Your task to perform on an android device: Go to Amazon Image 0: 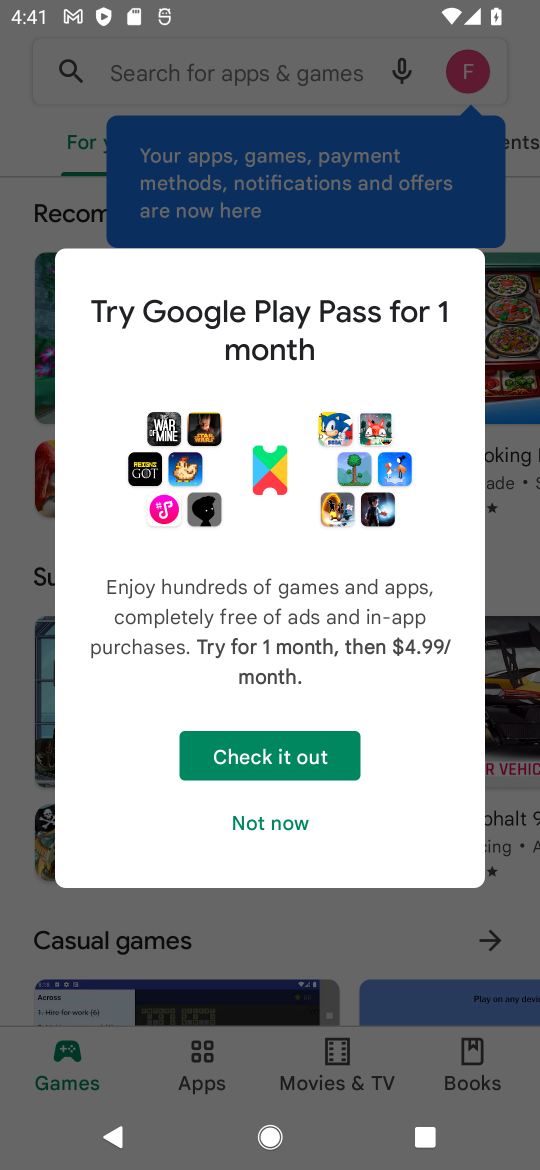
Step 0: press home button
Your task to perform on an android device: Go to Amazon Image 1: 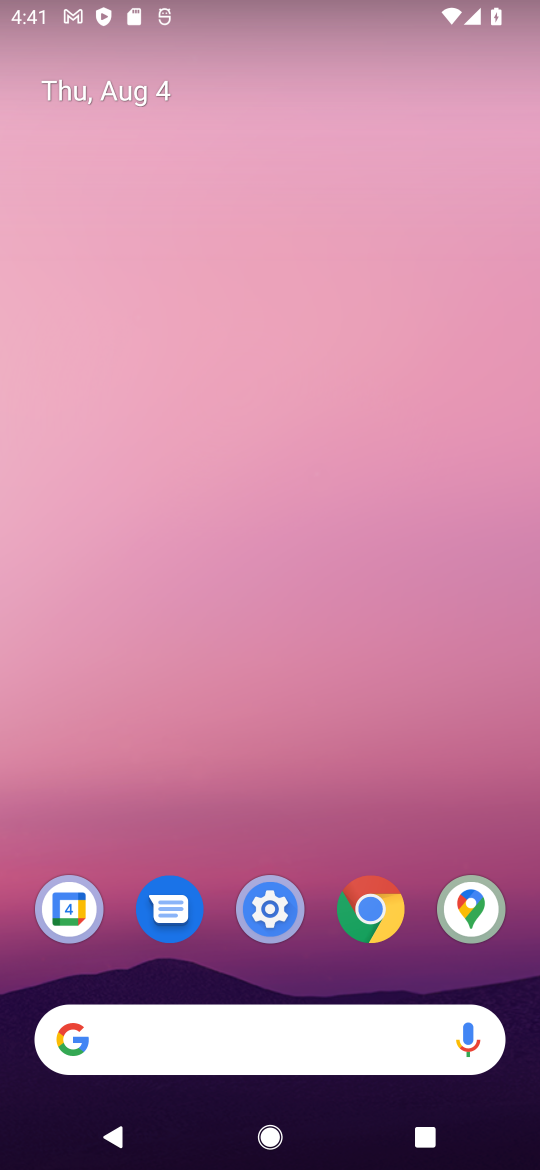
Step 1: click (406, 908)
Your task to perform on an android device: Go to Amazon Image 2: 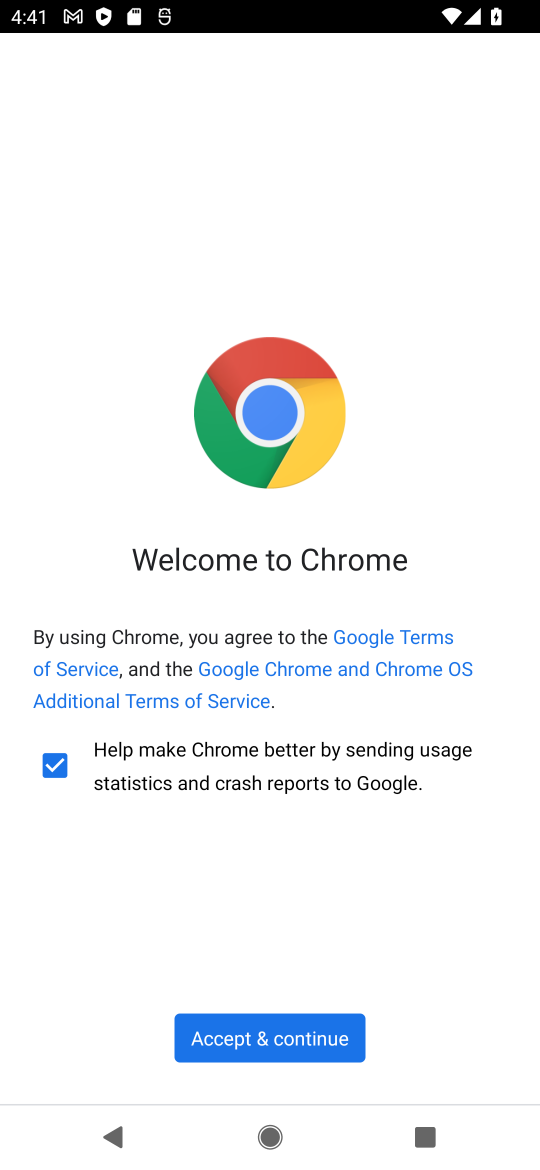
Step 2: click (293, 1024)
Your task to perform on an android device: Go to Amazon Image 3: 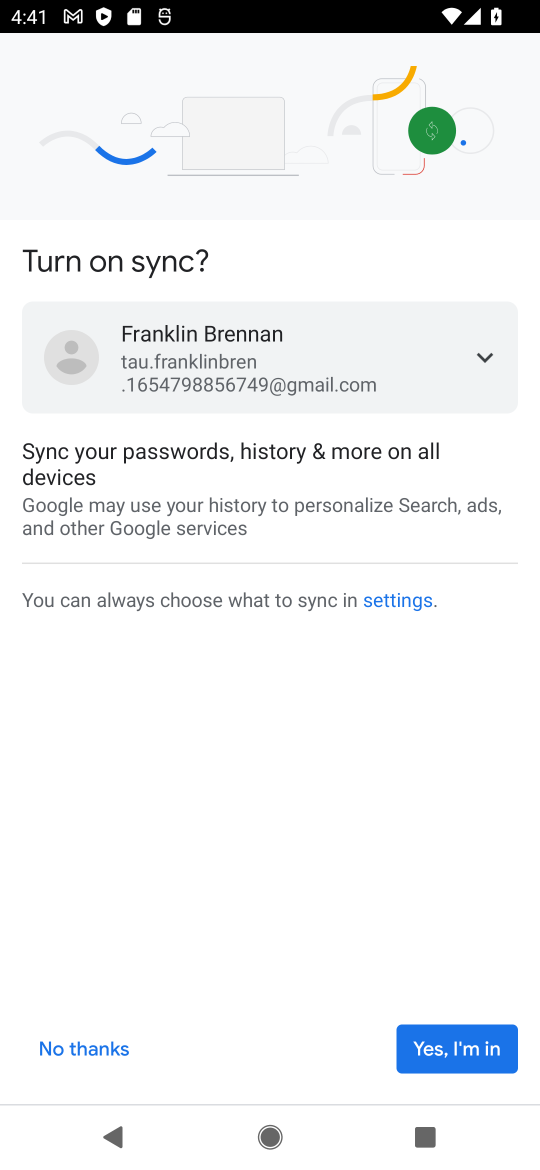
Step 3: click (494, 1054)
Your task to perform on an android device: Go to Amazon Image 4: 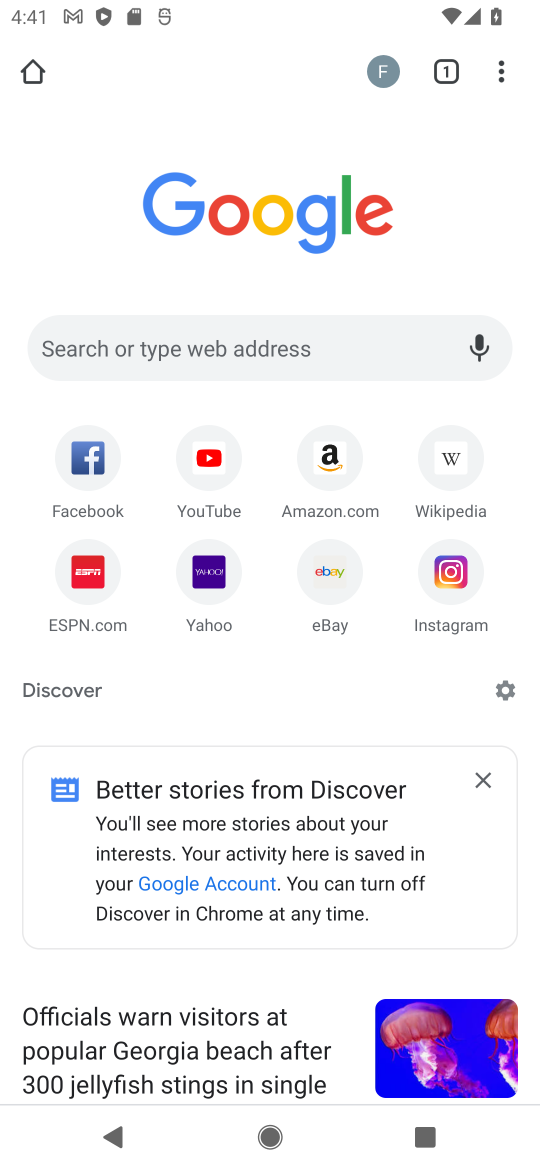
Step 4: click (339, 465)
Your task to perform on an android device: Go to Amazon Image 5: 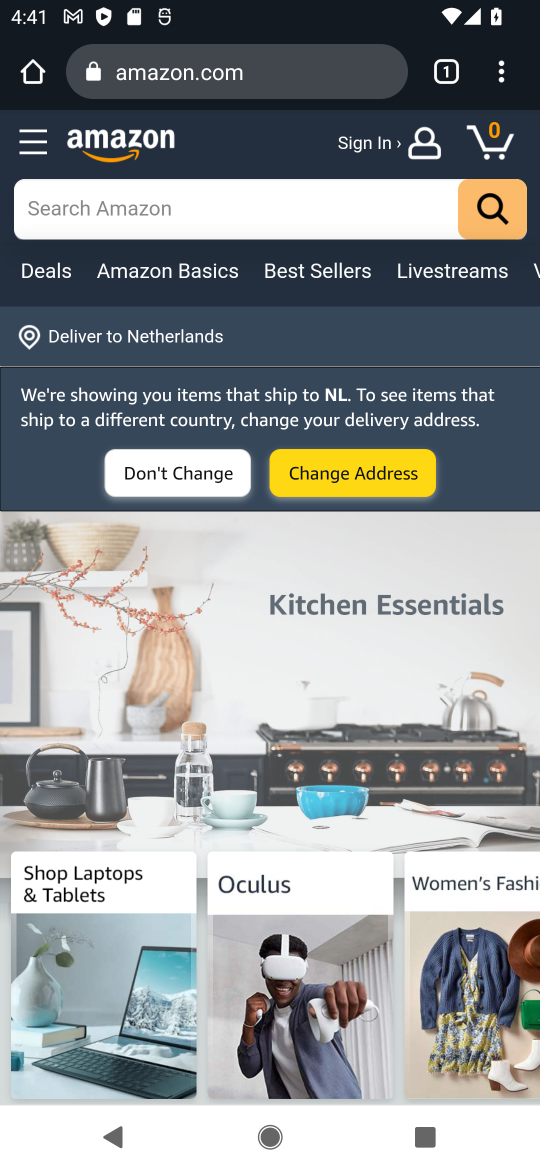
Step 5: task complete